Your task to perform on an android device: stop showing notifications on the lock screen Image 0: 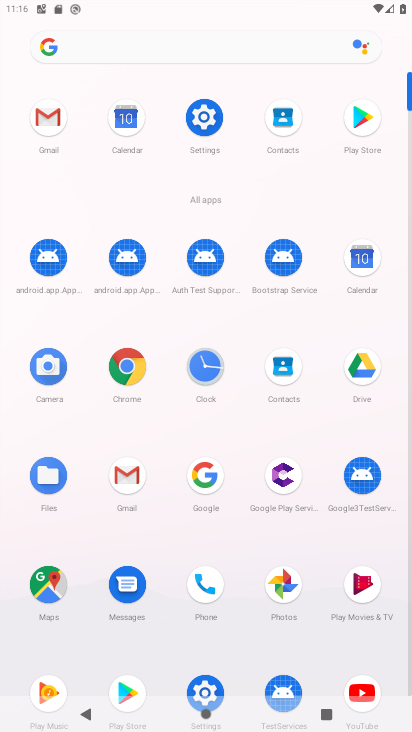
Step 0: click (207, 125)
Your task to perform on an android device: stop showing notifications on the lock screen Image 1: 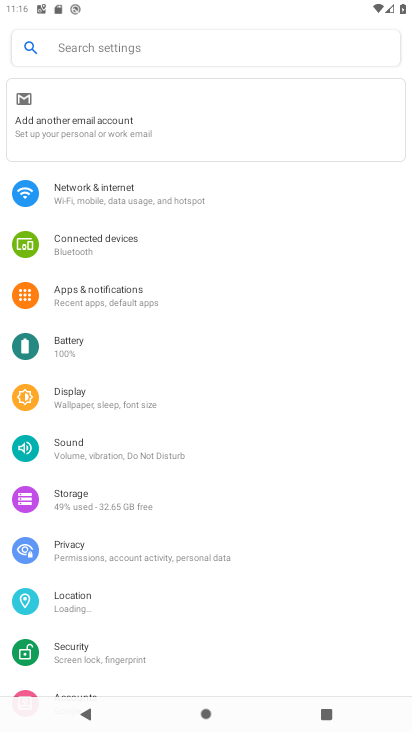
Step 1: click (94, 300)
Your task to perform on an android device: stop showing notifications on the lock screen Image 2: 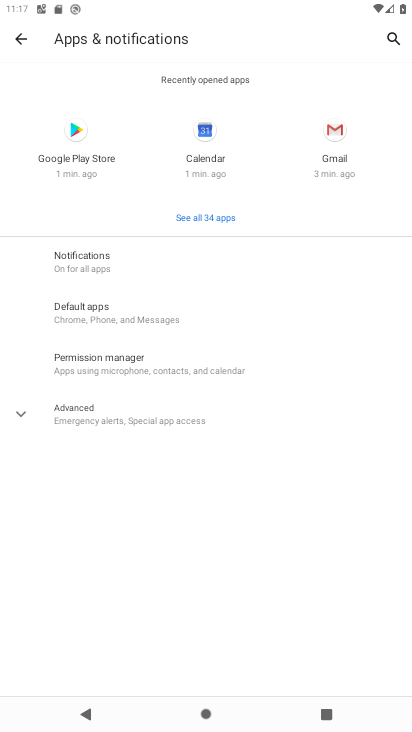
Step 2: click (89, 268)
Your task to perform on an android device: stop showing notifications on the lock screen Image 3: 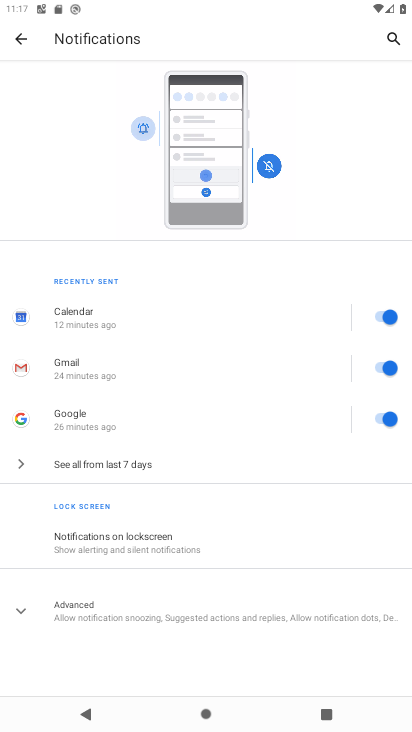
Step 3: click (175, 547)
Your task to perform on an android device: stop showing notifications on the lock screen Image 4: 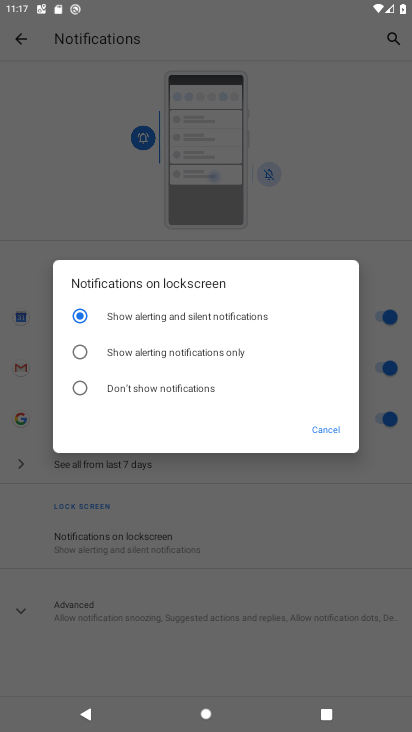
Step 4: click (154, 390)
Your task to perform on an android device: stop showing notifications on the lock screen Image 5: 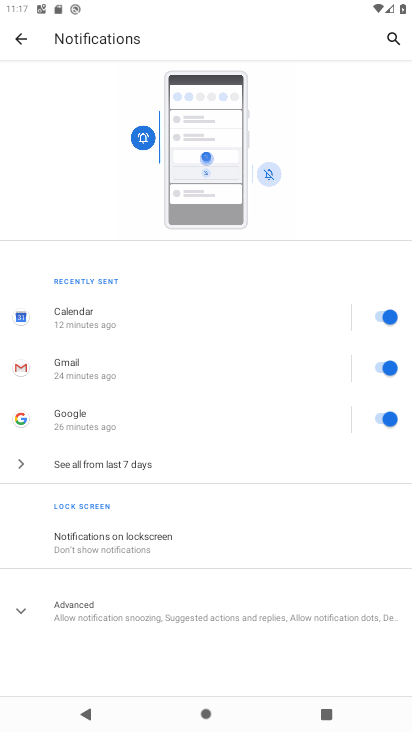
Step 5: task complete